Your task to perform on an android device: turn on bluetooth scan Image 0: 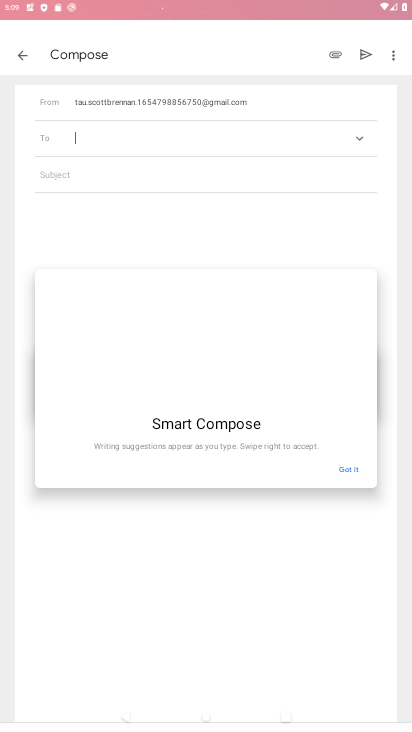
Step 0: press home button
Your task to perform on an android device: turn on bluetooth scan Image 1: 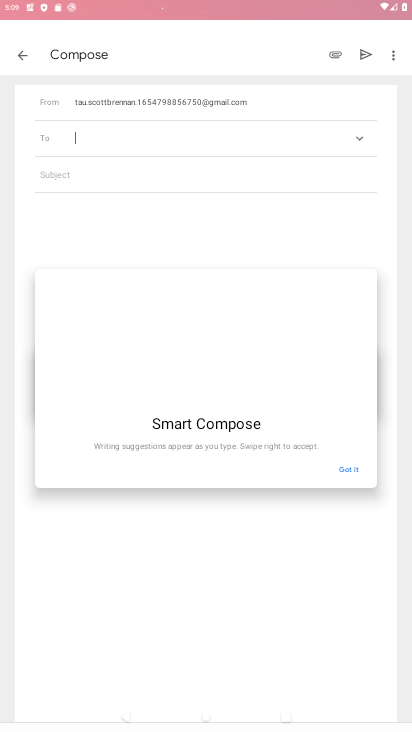
Step 1: drag from (176, 650) to (266, 476)
Your task to perform on an android device: turn on bluetooth scan Image 2: 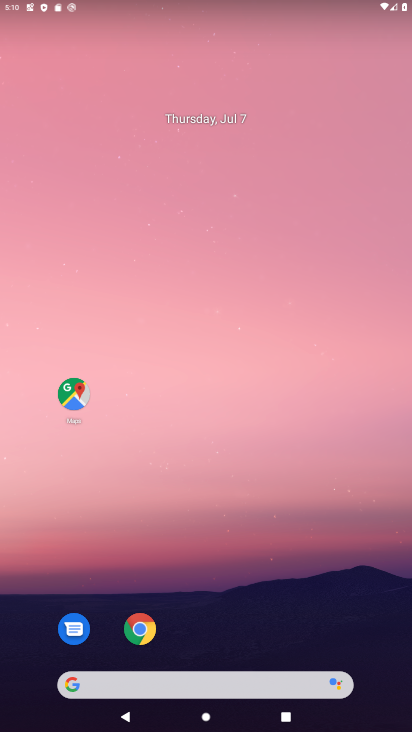
Step 2: drag from (336, 12) to (269, 499)
Your task to perform on an android device: turn on bluetooth scan Image 3: 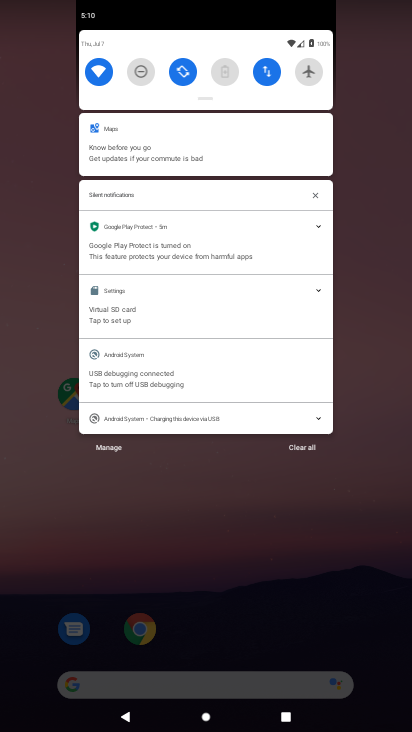
Step 3: drag from (204, 101) to (164, 347)
Your task to perform on an android device: turn on bluetooth scan Image 4: 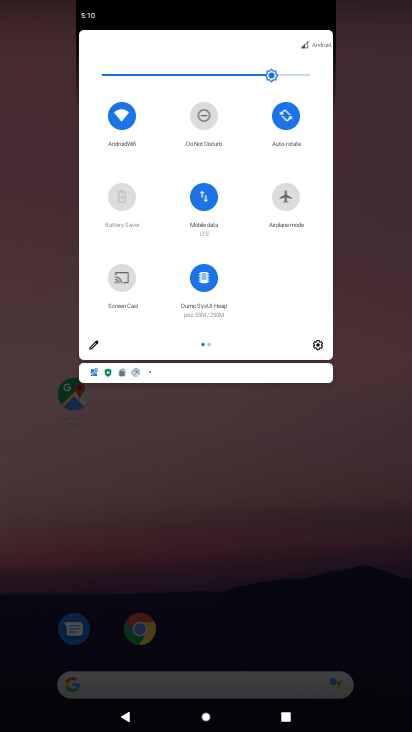
Step 4: drag from (309, 292) to (95, 359)
Your task to perform on an android device: turn on bluetooth scan Image 5: 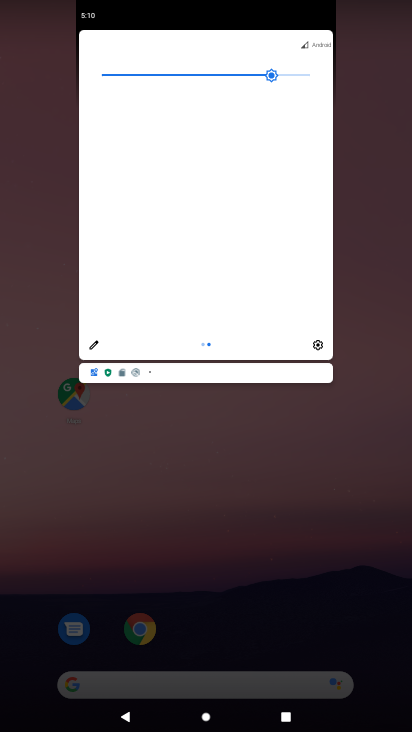
Step 5: drag from (175, 497) to (280, 207)
Your task to perform on an android device: turn on bluetooth scan Image 6: 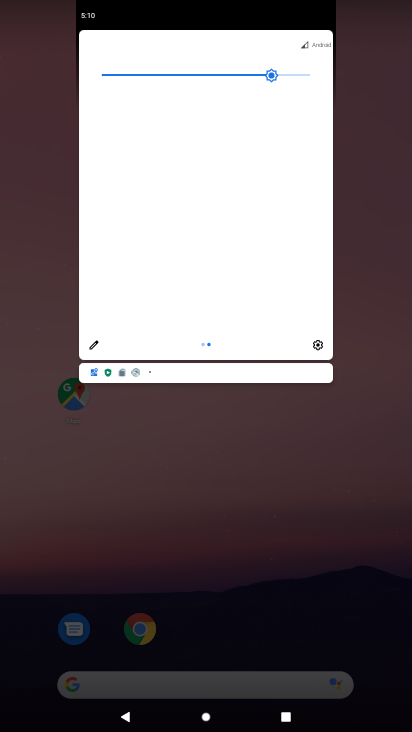
Step 6: click (318, 339)
Your task to perform on an android device: turn on bluetooth scan Image 7: 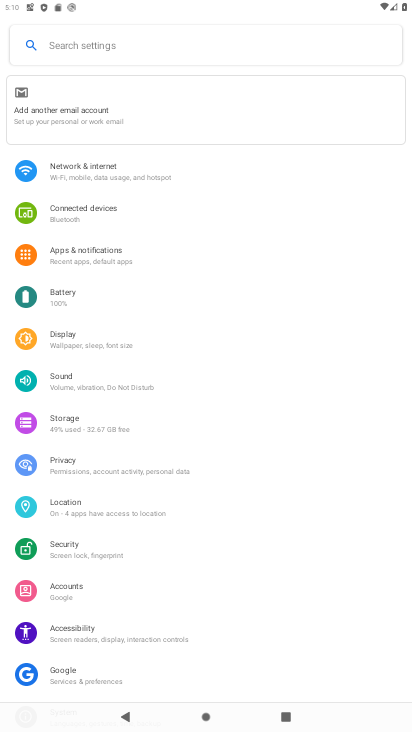
Step 7: drag from (84, 621) to (153, 307)
Your task to perform on an android device: turn on bluetooth scan Image 8: 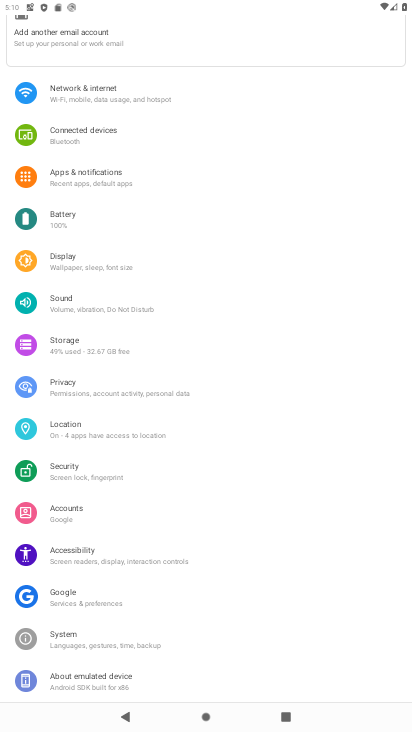
Step 8: drag from (172, 264) to (162, 366)
Your task to perform on an android device: turn on bluetooth scan Image 9: 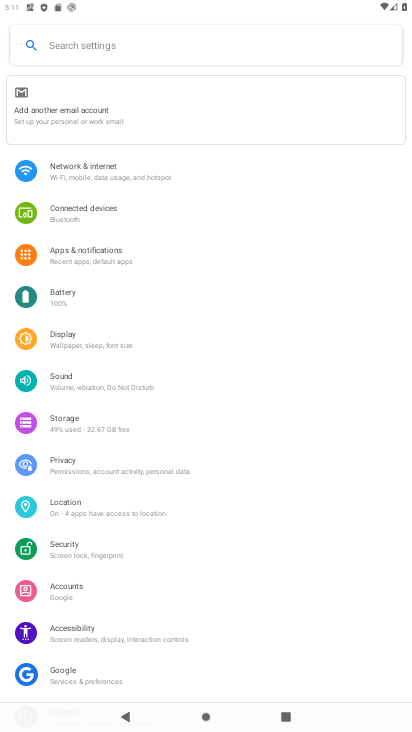
Step 9: drag from (140, 571) to (67, 192)
Your task to perform on an android device: turn on bluetooth scan Image 10: 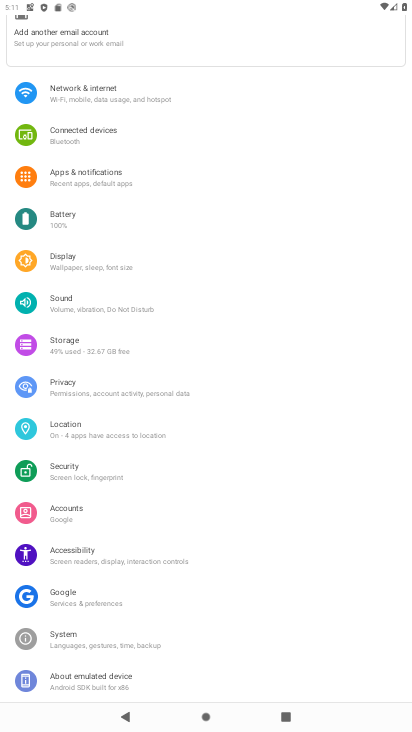
Step 10: click (45, 652)
Your task to perform on an android device: turn on bluetooth scan Image 11: 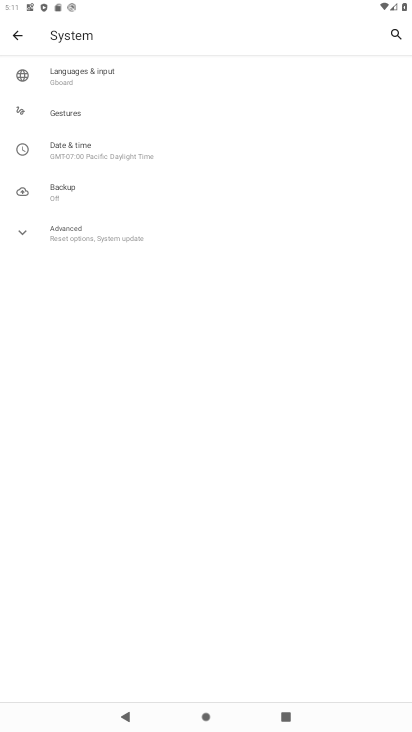
Step 11: click (16, 36)
Your task to perform on an android device: turn on bluetooth scan Image 12: 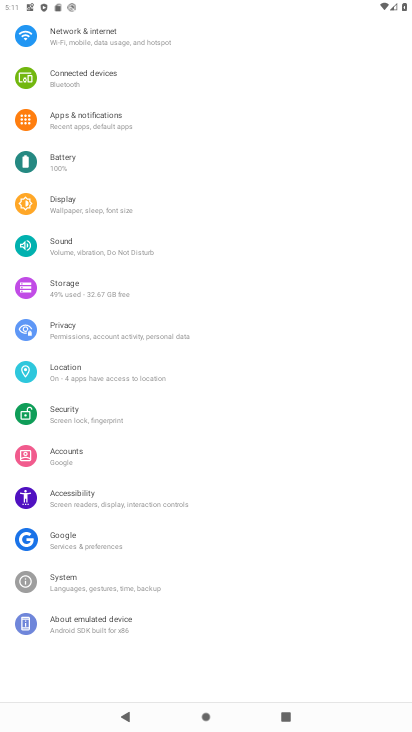
Step 12: drag from (144, 215) to (147, 647)
Your task to perform on an android device: turn on bluetooth scan Image 13: 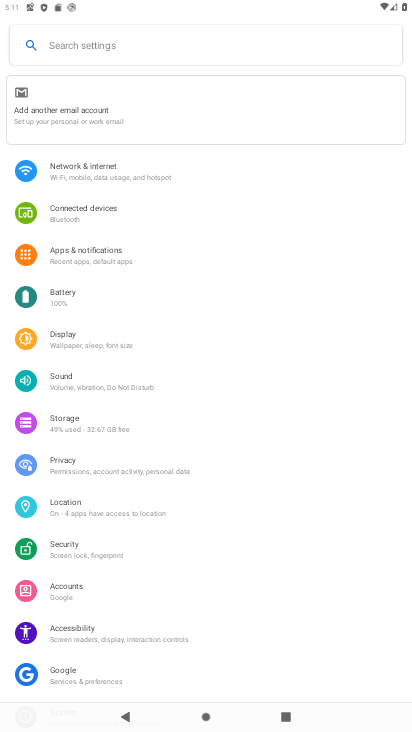
Step 13: click (65, 510)
Your task to perform on an android device: turn on bluetooth scan Image 14: 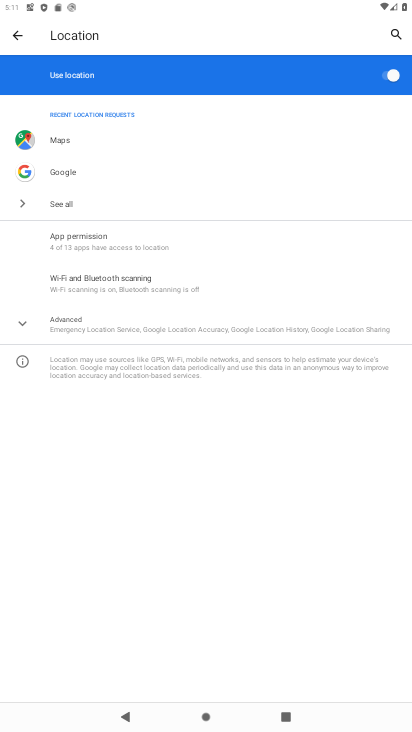
Step 14: click (80, 324)
Your task to perform on an android device: turn on bluetooth scan Image 15: 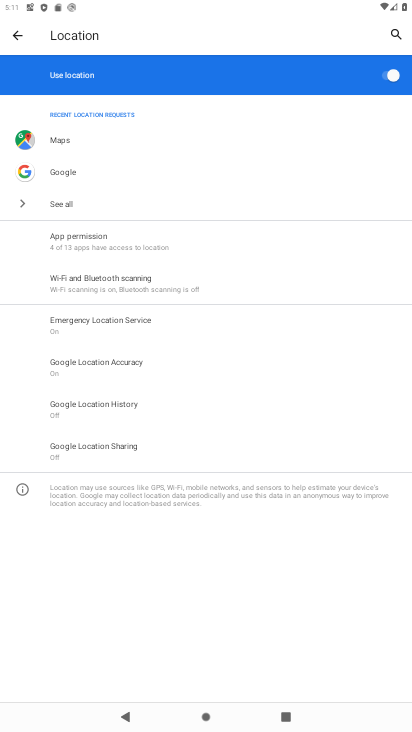
Step 15: click (65, 292)
Your task to perform on an android device: turn on bluetooth scan Image 16: 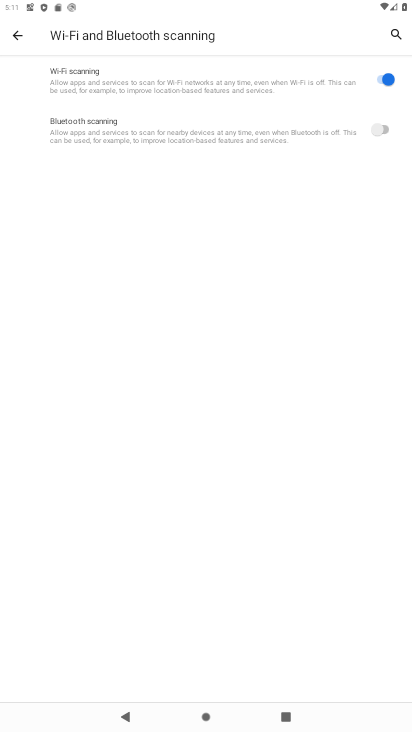
Step 16: click (165, 122)
Your task to perform on an android device: turn on bluetooth scan Image 17: 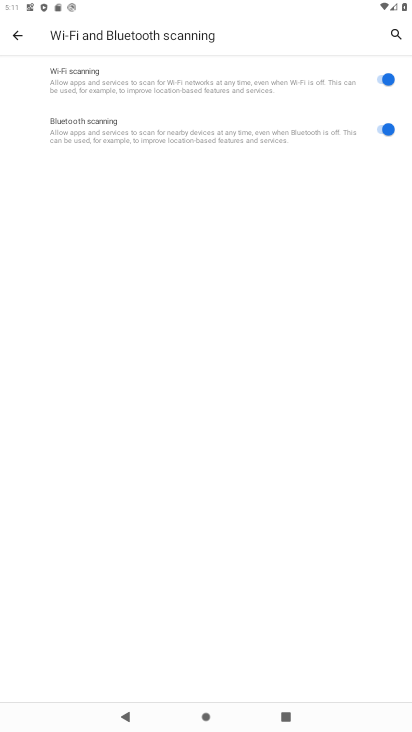
Step 17: click (165, 122)
Your task to perform on an android device: turn on bluetooth scan Image 18: 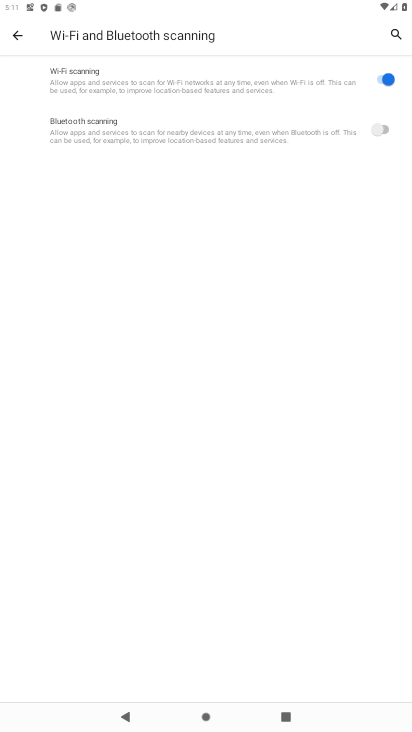
Step 18: click (165, 122)
Your task to perform on an android device: turn on bluetooth scan Image 19: 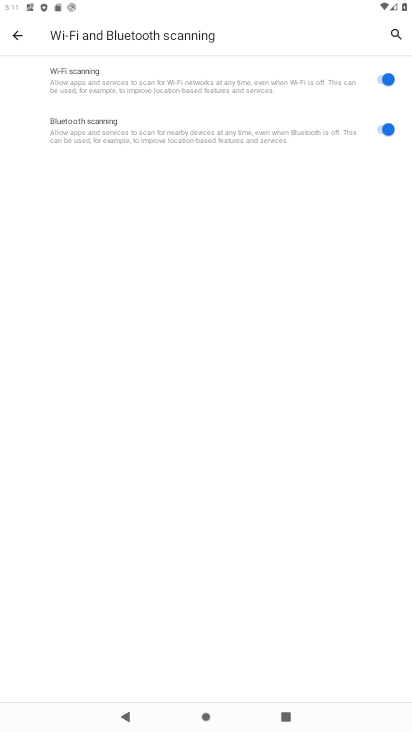
Step 19: task complete